Your task to perform on an android device: Is it going to rain today? Image 0: 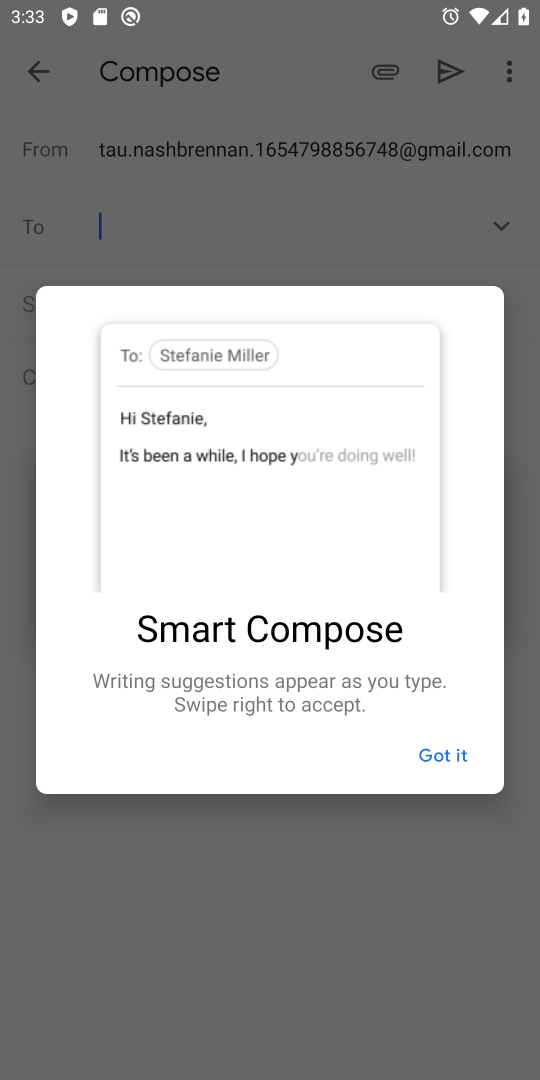
Step 0: press home button
Your task to perform on an android device: Is it going to rain today? Image 1: 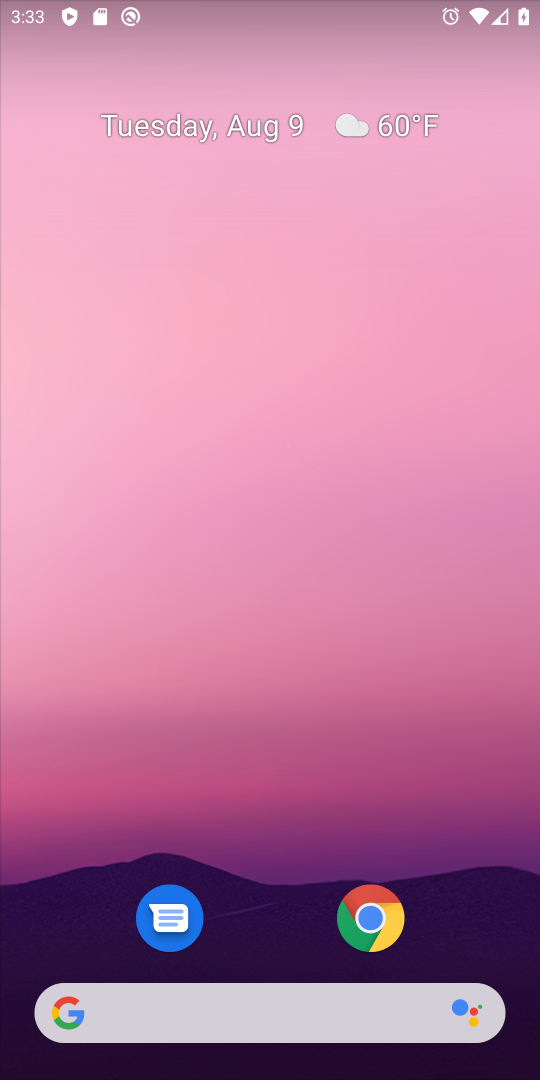
Step 1: drag from (241, 987) to (292, 56)
Your task to perform on an android device: Is it going to rain today? Image 2: 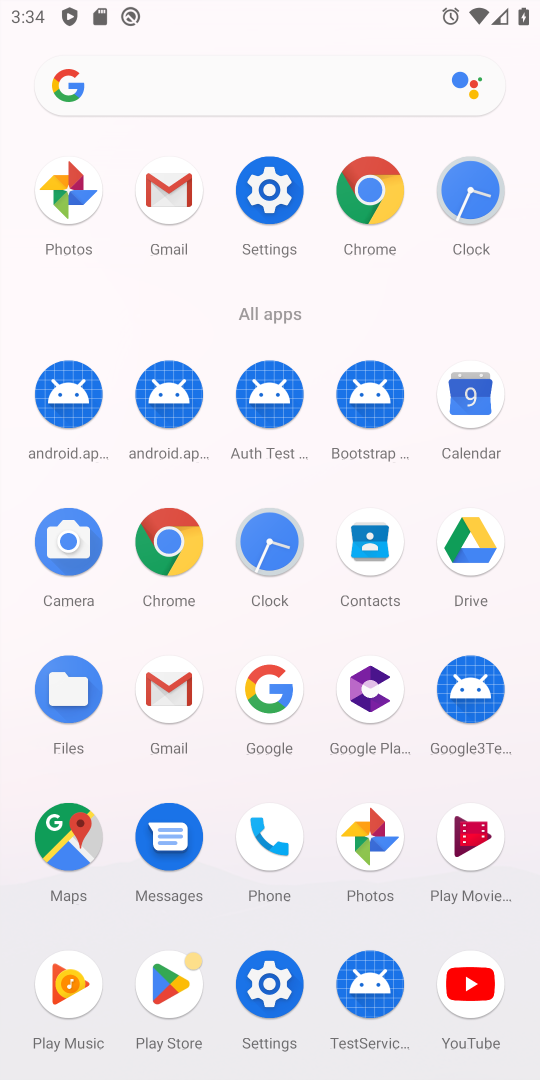
Step 2: click (361, 226)
Your task to perform on an android device: Is it going to rain today? Image 3: 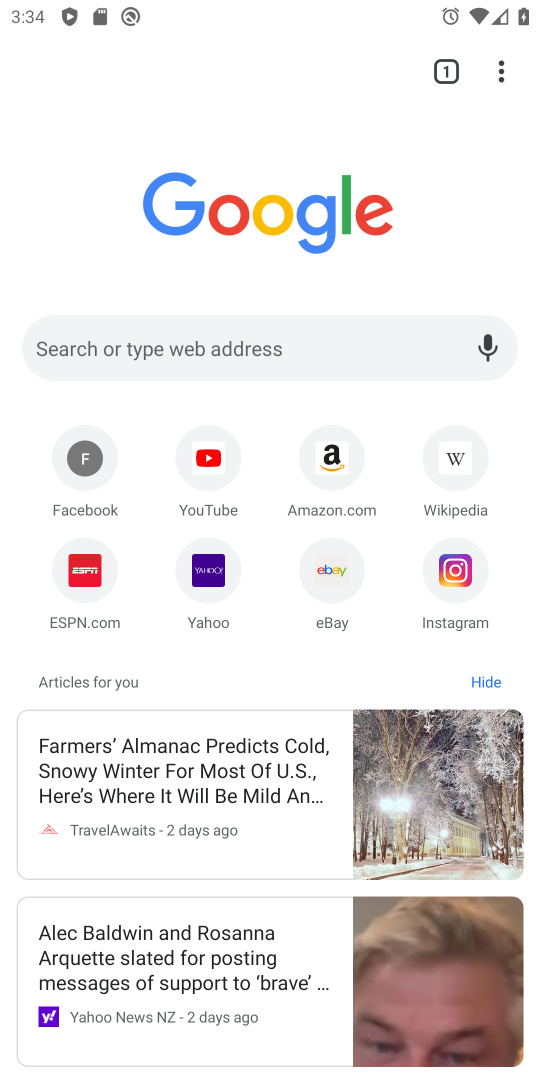
Step 3: click (273, 324)
Your task to perform on an android device: Is it going to rain today? Image 4: 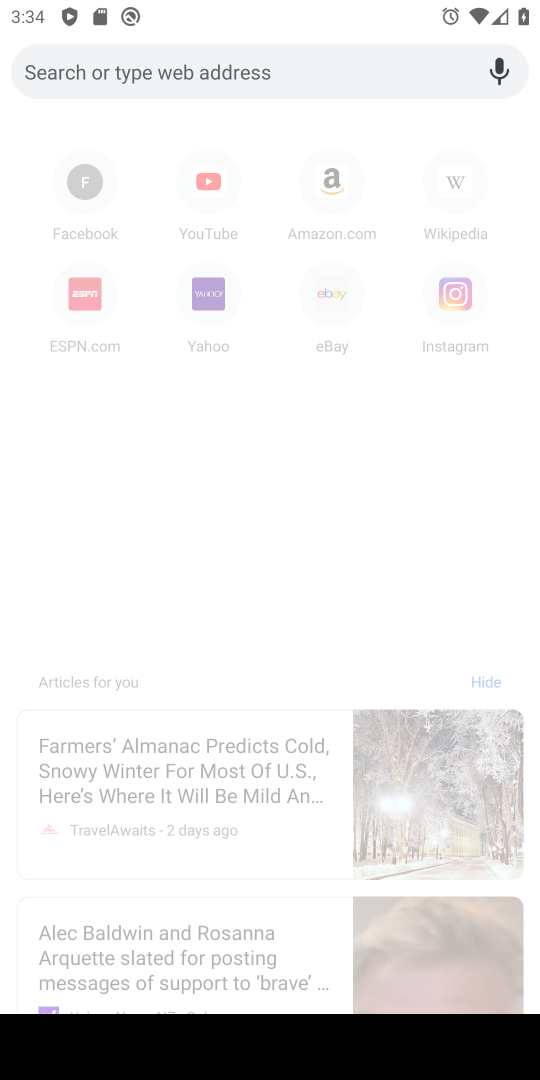
Step 4: type "weather today"
Your task to perform on an android device: Is it going to rain today? Image 5: 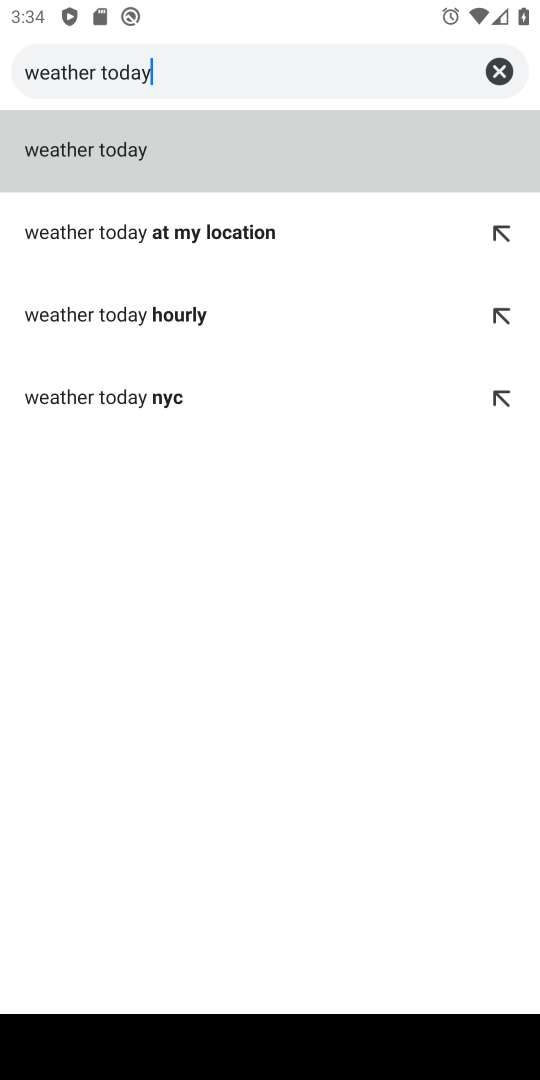
Step 5: click (223, 168)
Your task to perform on an android device: Is it going to rain today? Image 6: 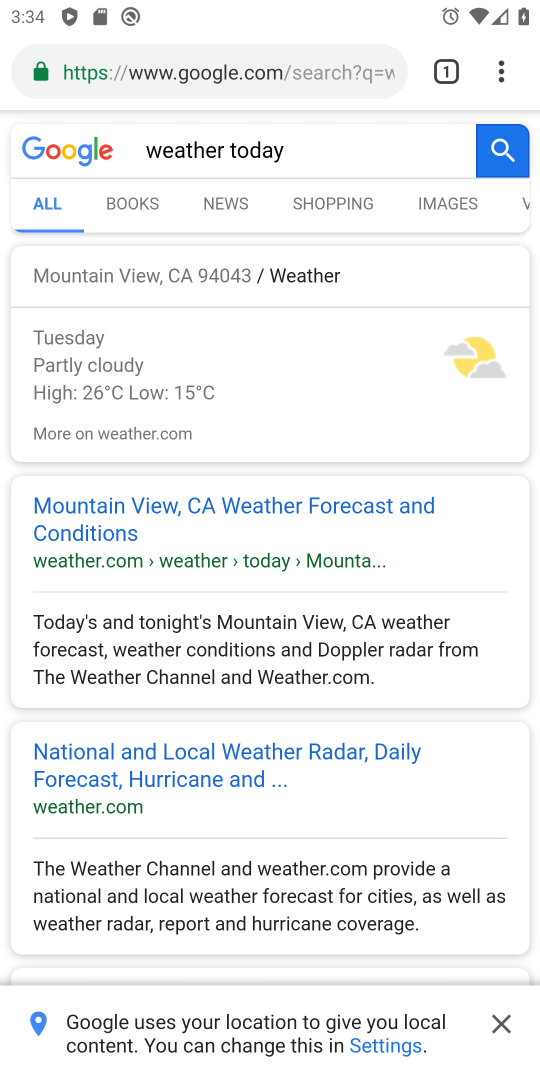
Step 6: task complete